Your task to perform on an android device: Add "duracell triple a" to the cart on amazon Image 0: 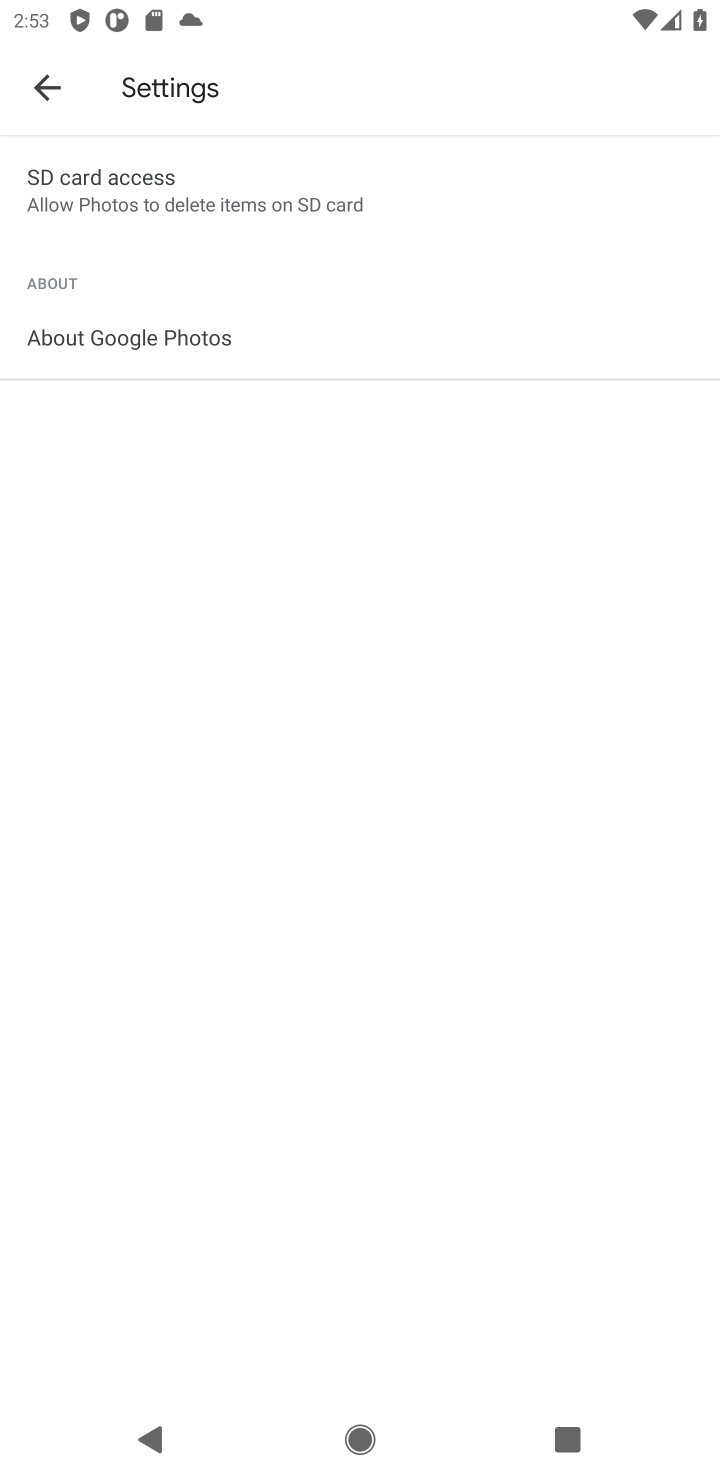
Step 0: press home button
Your task to perform on an android device: Add "duracell triple a" to the cart on amazon Image 1: 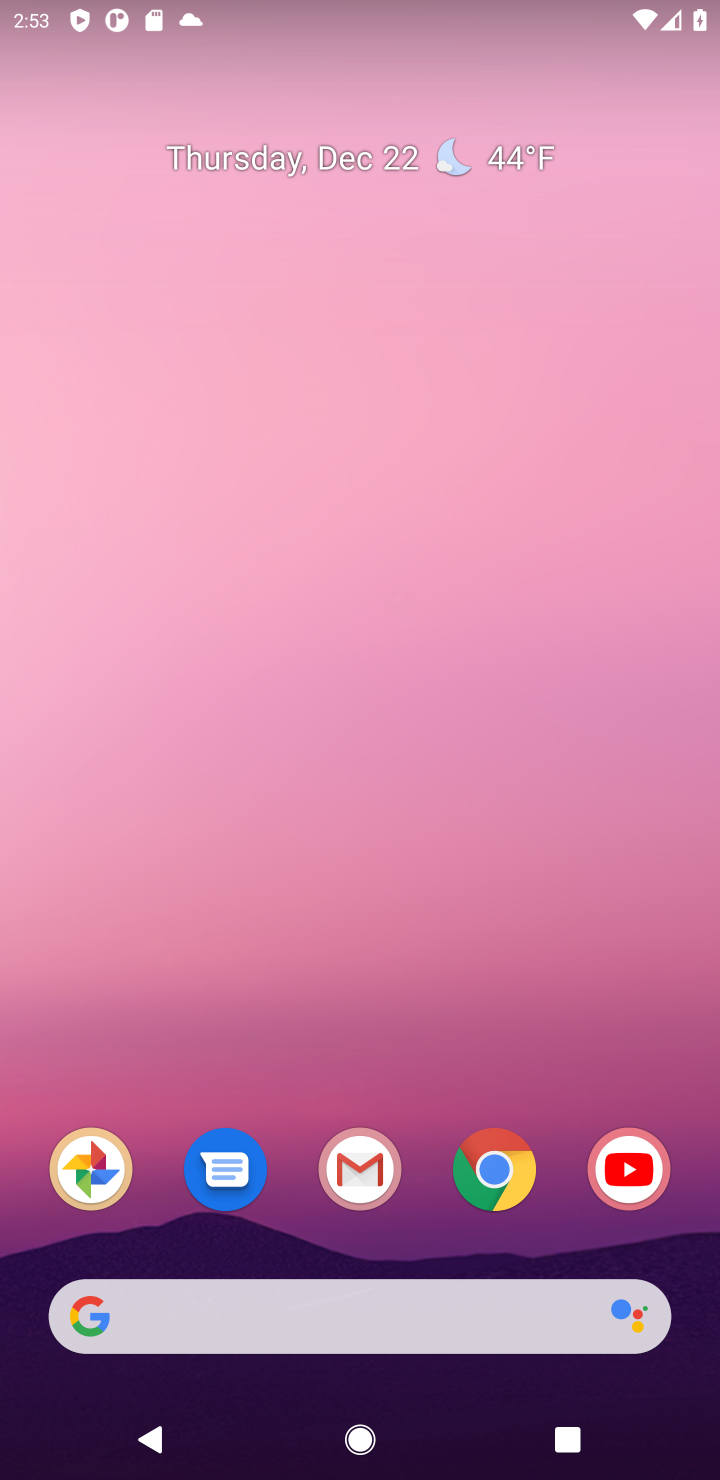
Step 1: click (493, 1178)
Your task to perform on an android device: Add "duracell triple a" to the cart on amazon Image 2: 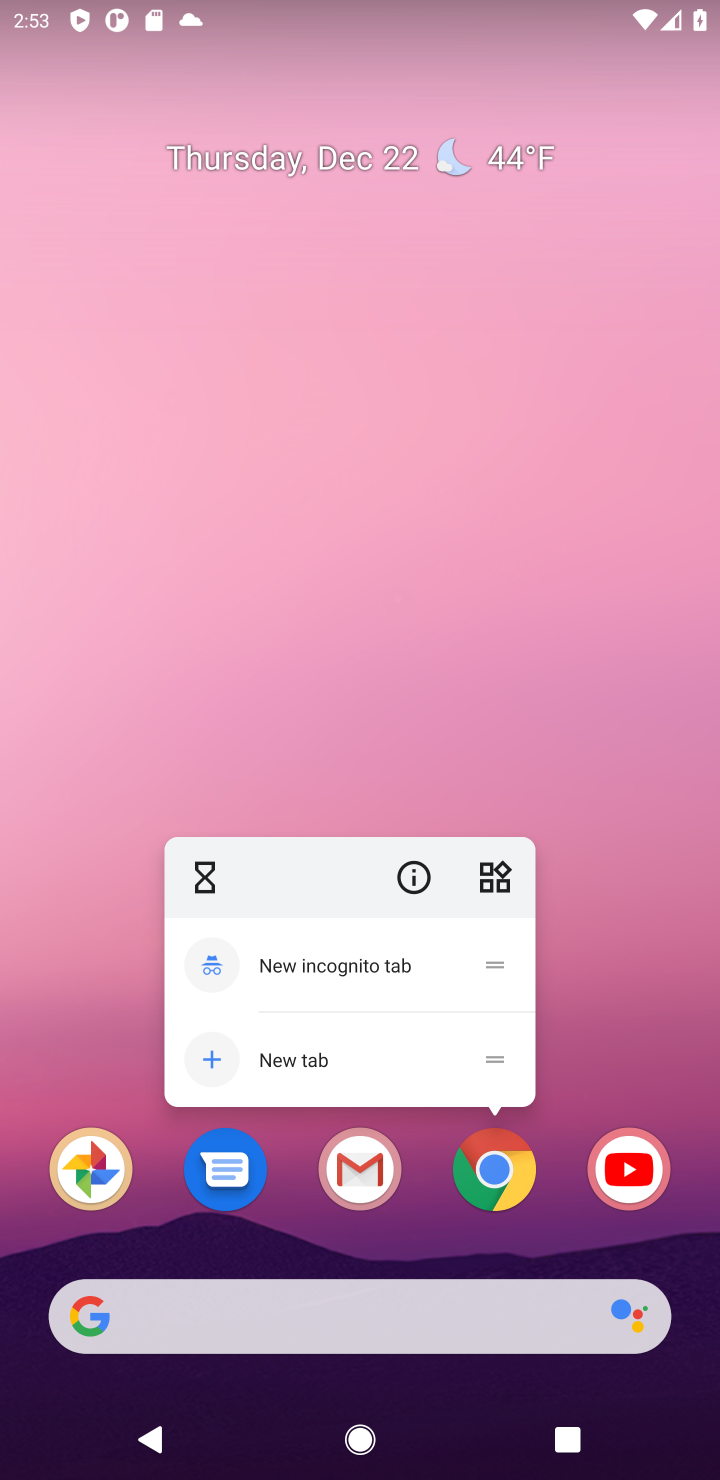
Step 2: click (493, 1178)
Your task to perform on an android device: Add "duracell triple a" to the cart on amazon Image 3: 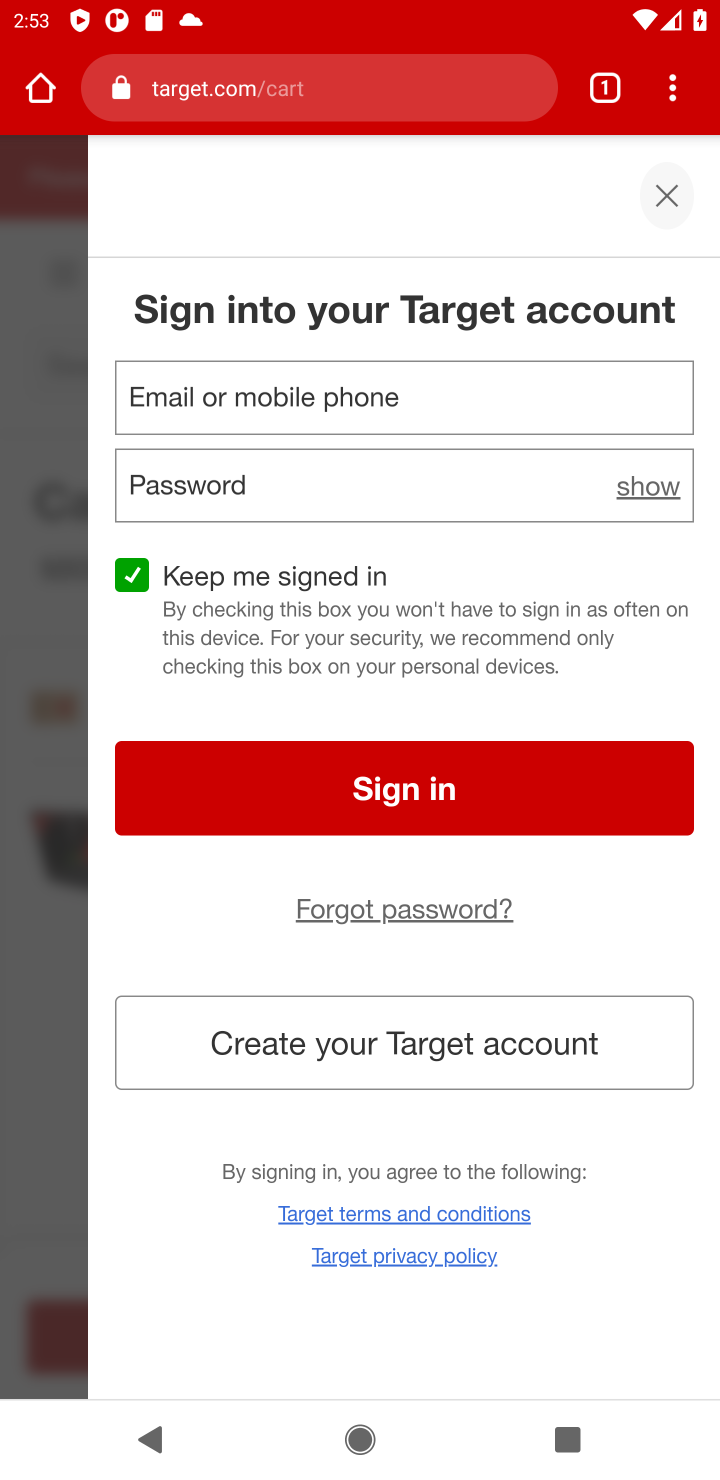
Step 3: click (249, 91)
Your task to perform on an android device: Add "duracell triple a" to the cart on amazon Image 4: 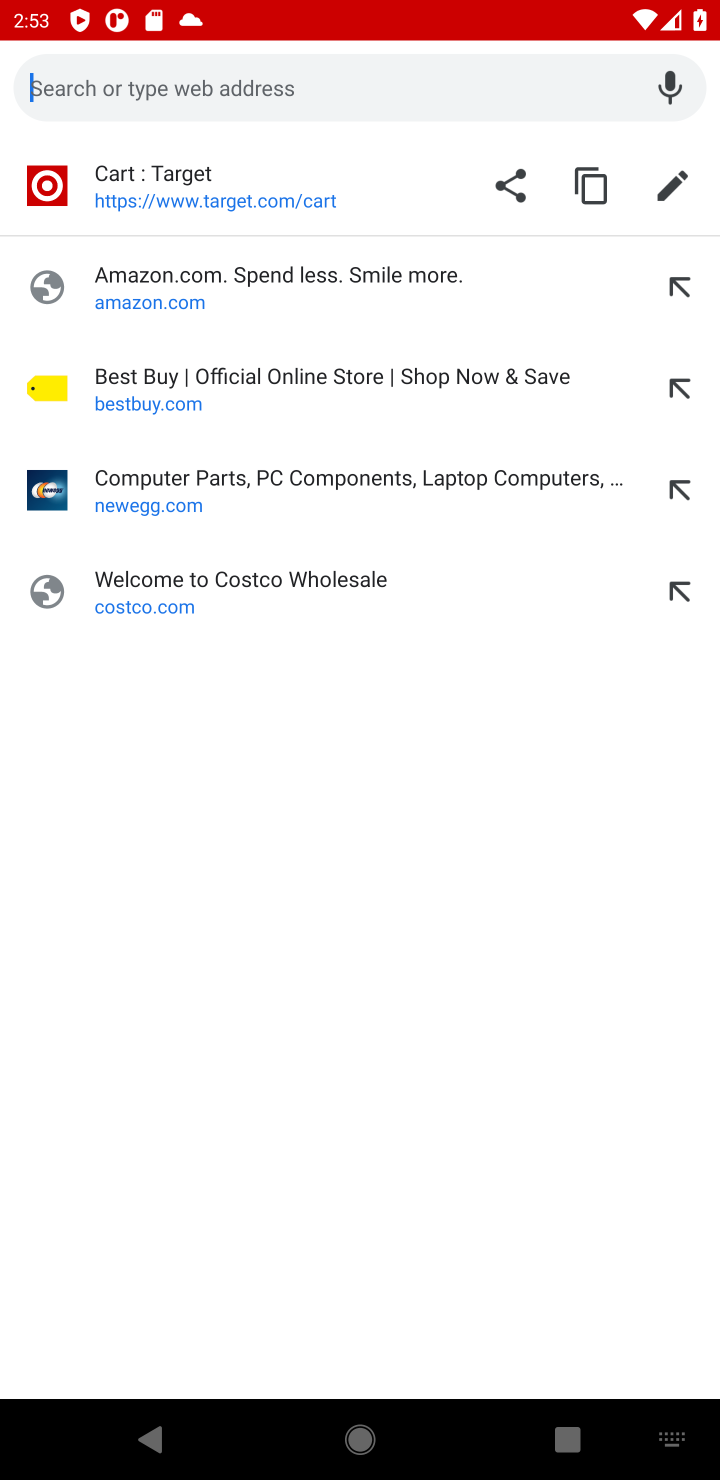
Step 4: click (145, 298)
Your task to perform on an android device: Add "duracell triple a" to the cart on amazon Image 5: 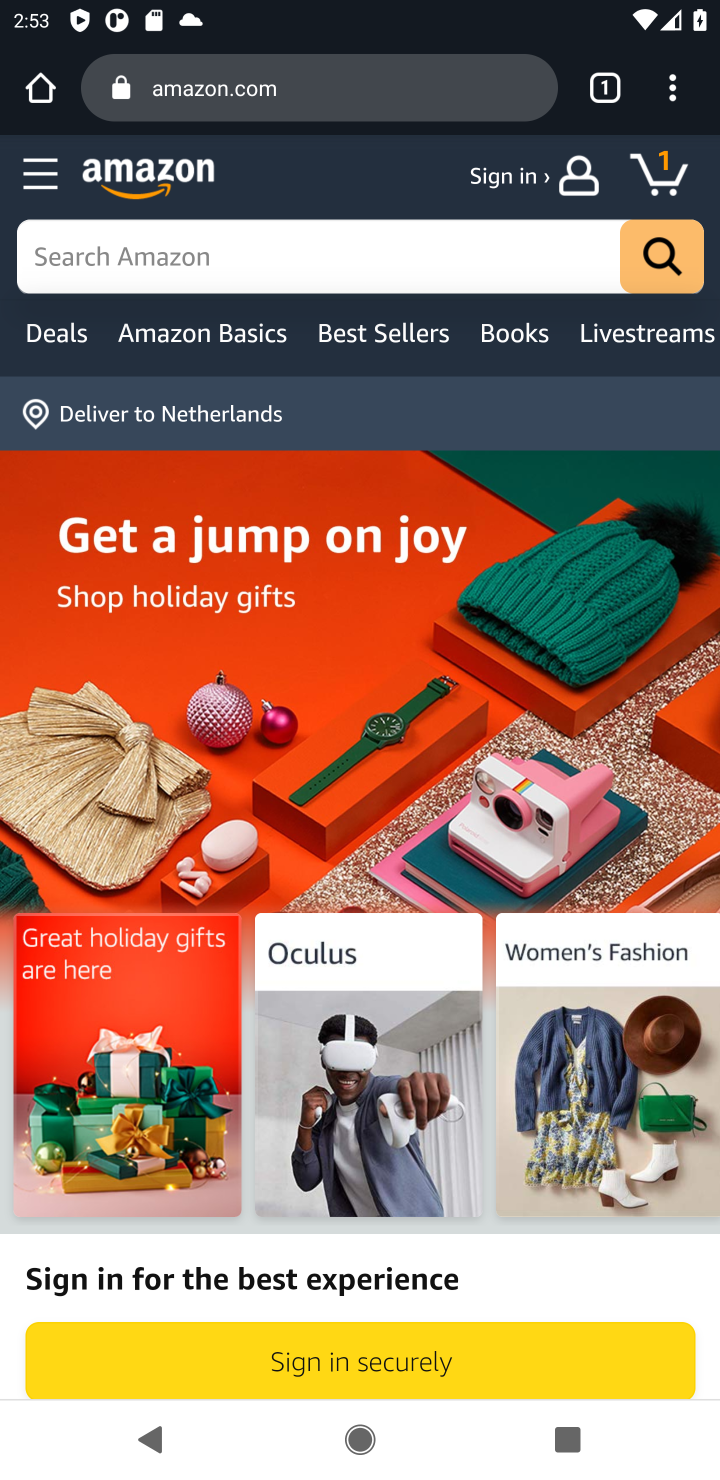
Step 5: click (183, 253)
Your task to perform on an android device: Add "duracell triple a" to the cart on amazon Image 6: 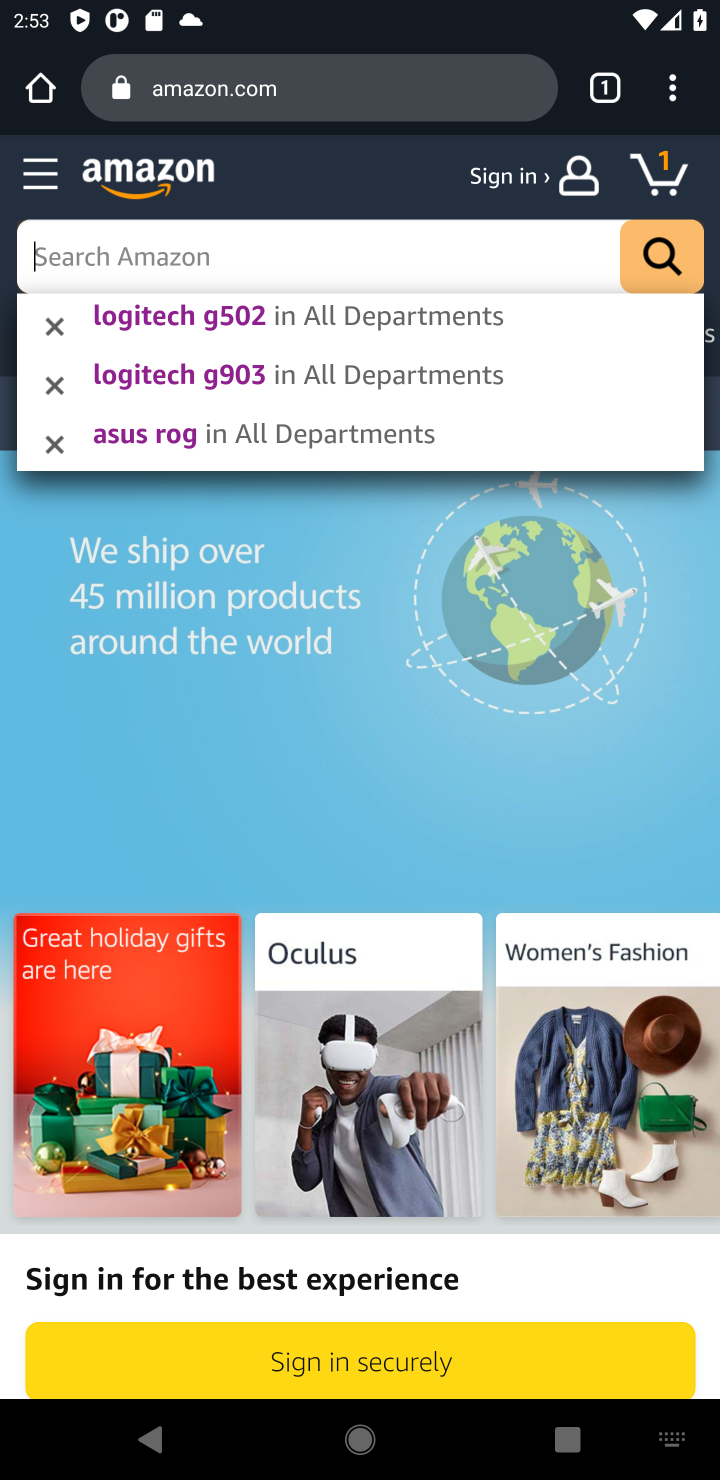
Step 6: type "duracell triple a"
Your task to perform on an android device: Add "duracell triple a" to the cart on amazon Image 7: 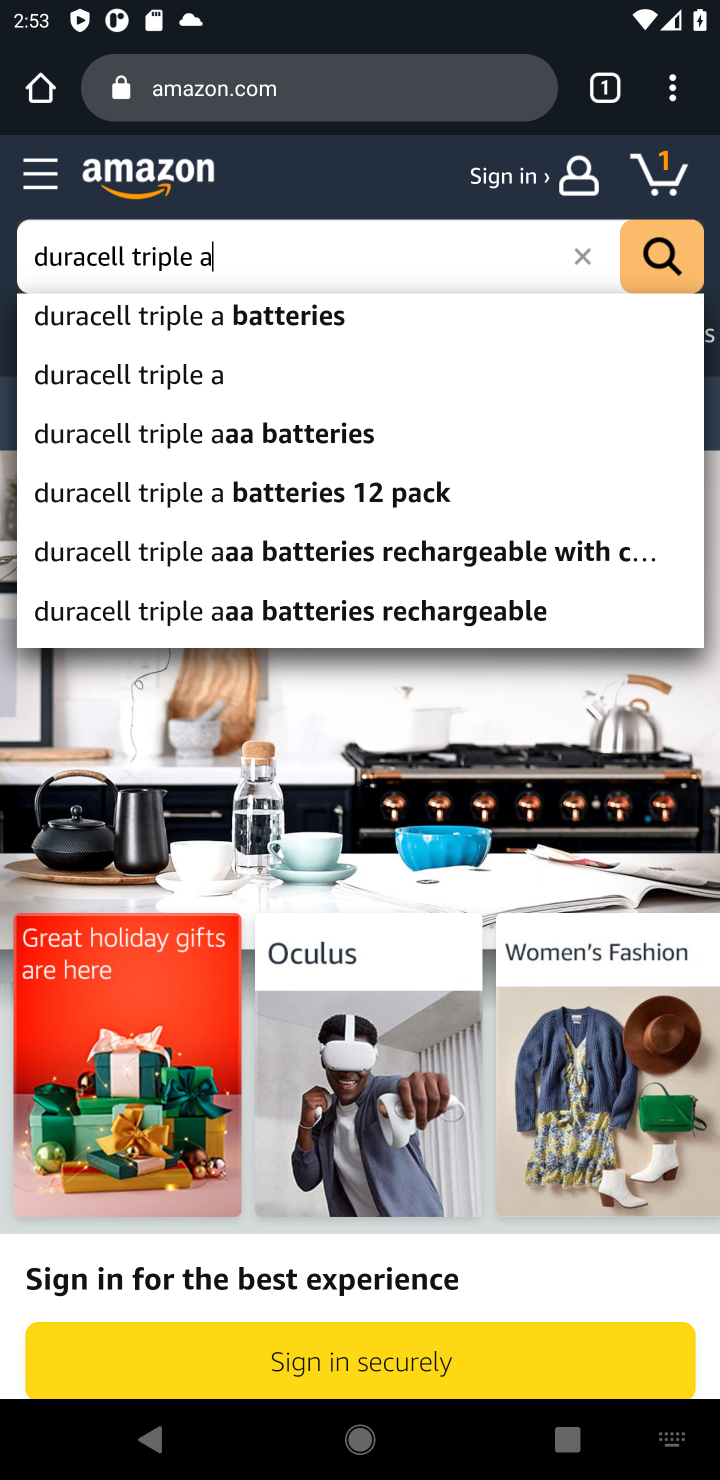
Step 7: click (198, 328)
Your task to perform on an android device: Add "duracell triple a" to the cart on amazon Image 8: 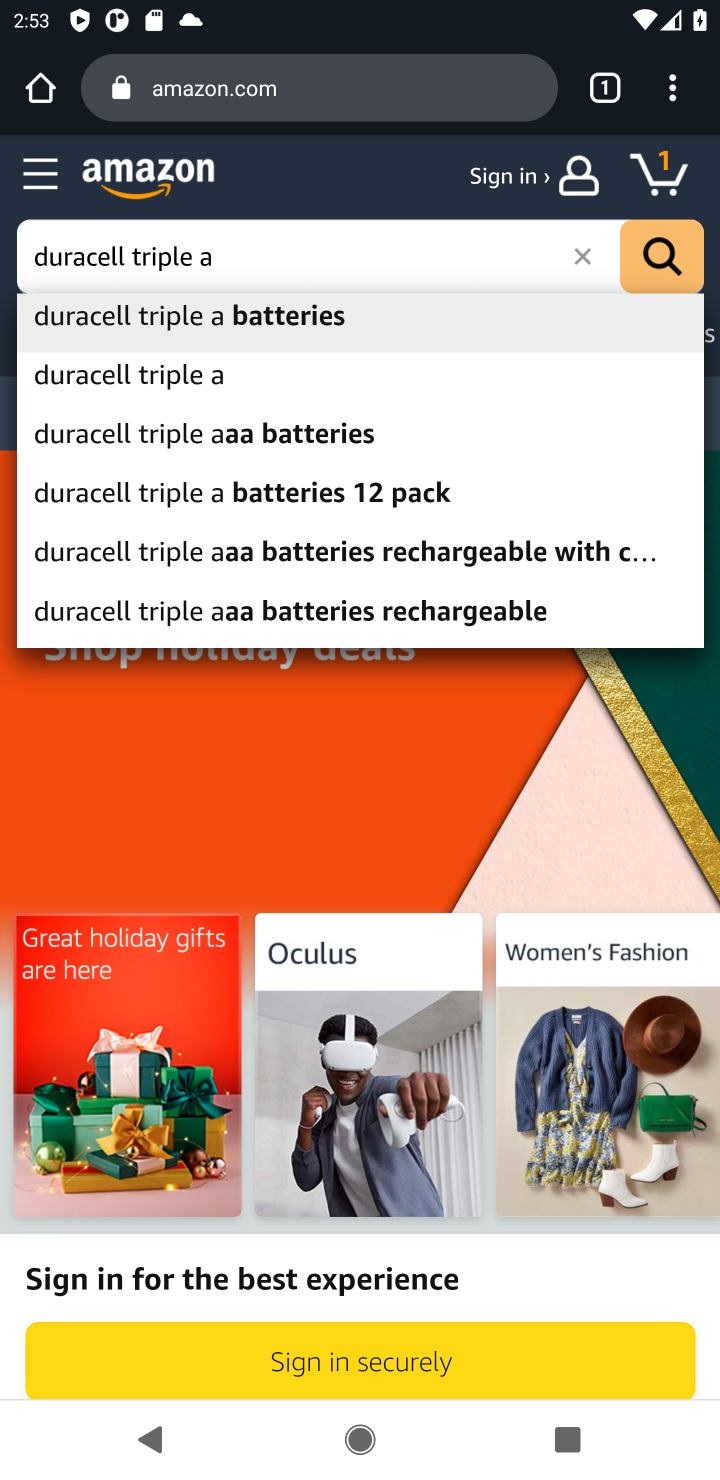
Step 8: click (175, 323)
Your task to perform on an android device: Add "duracell triple a" to the cart on amazon Image 9: 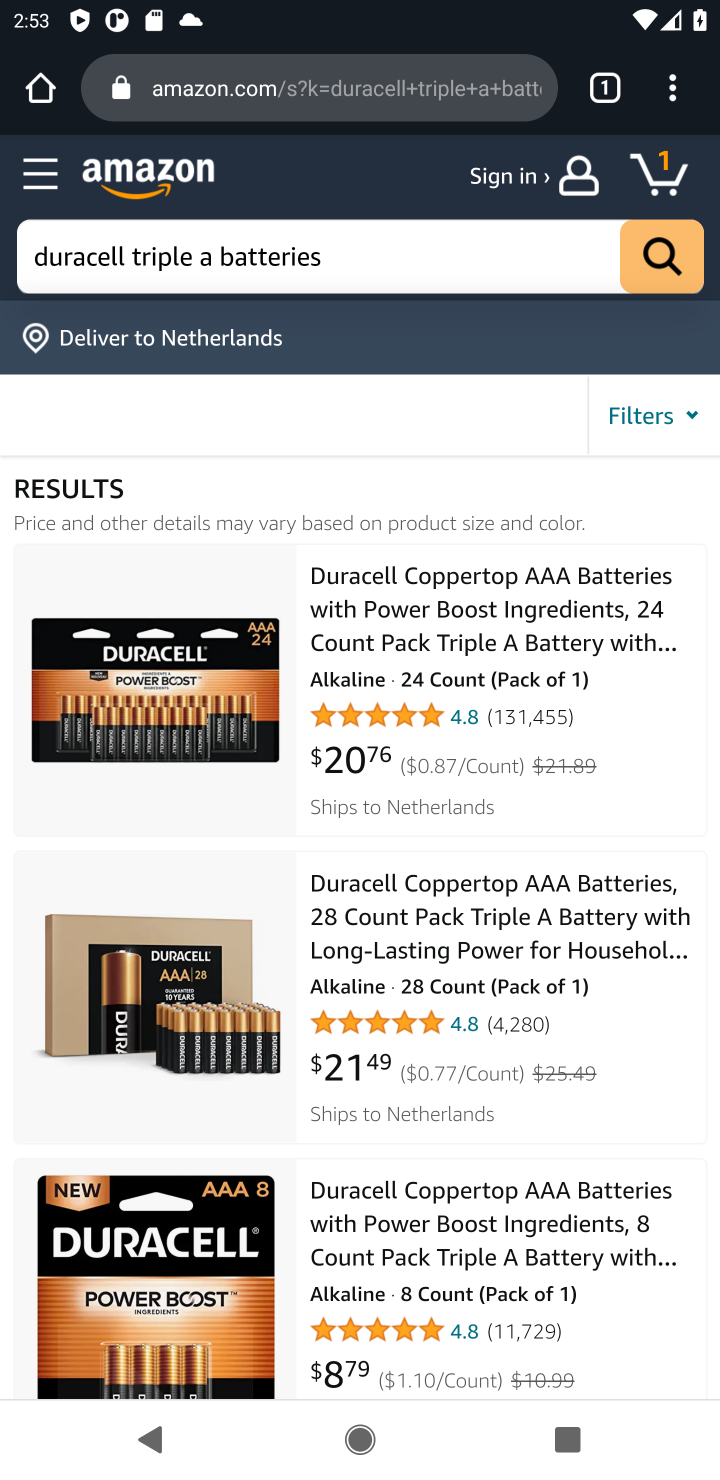
Step 9: click (455, 637)
Your task to perform on an android device: Add "duracell triple a" to the cart on amazon Image 10: 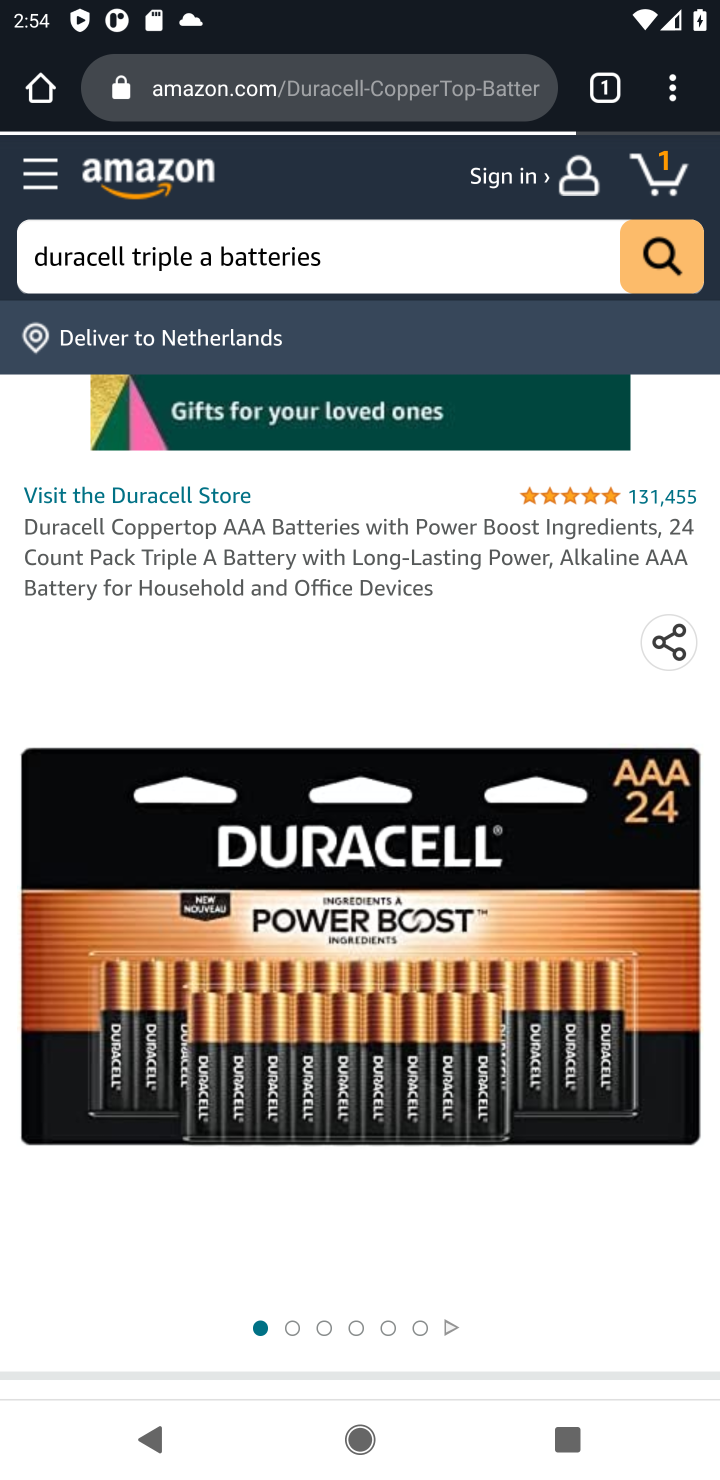
Step 10: drag from (356, 1015) to (376, 467)
Your task to perform on an android device: Add "duracell triple a" to the cart on amazon Image 11: 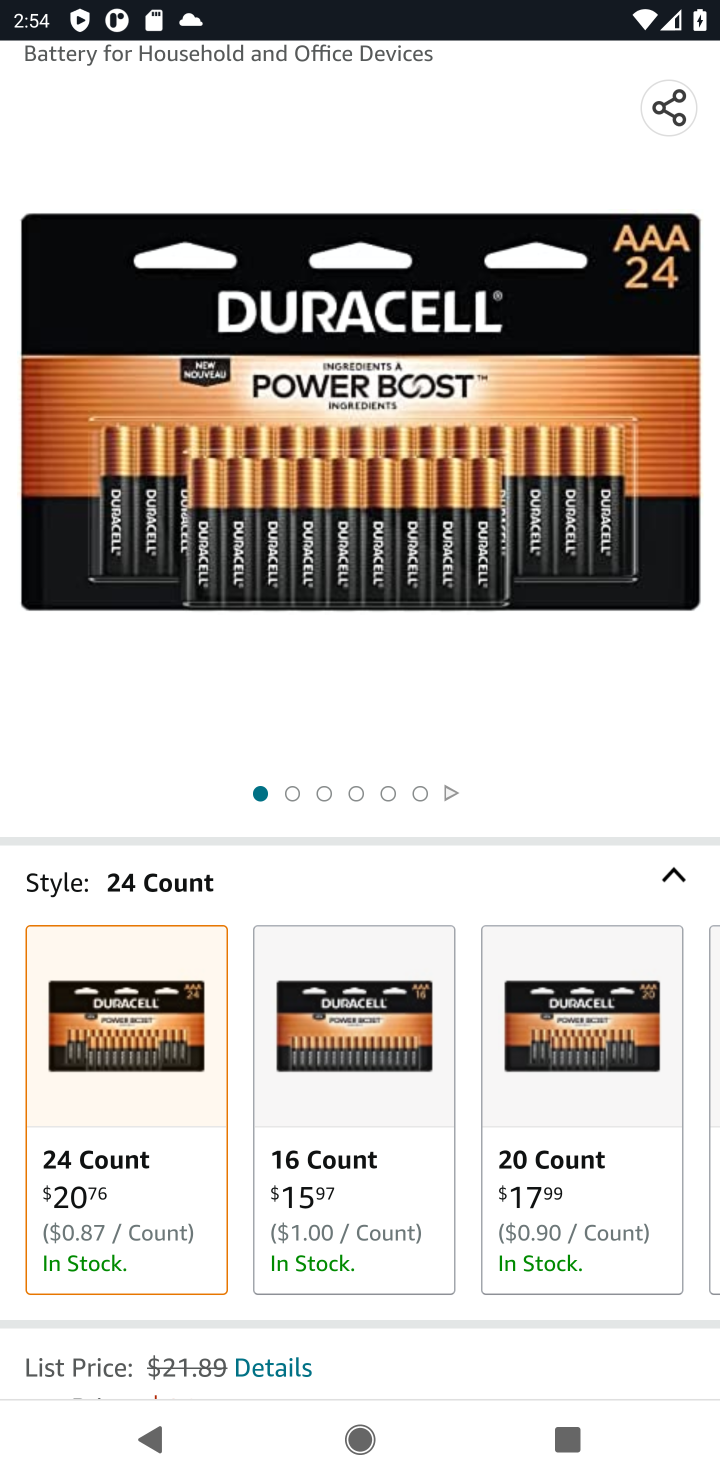
Step 11: drag from (338, 1145) to (376, 526)
Your task to perform on an android device: Add "duracell triple a" to the cart on amazon Image 12: 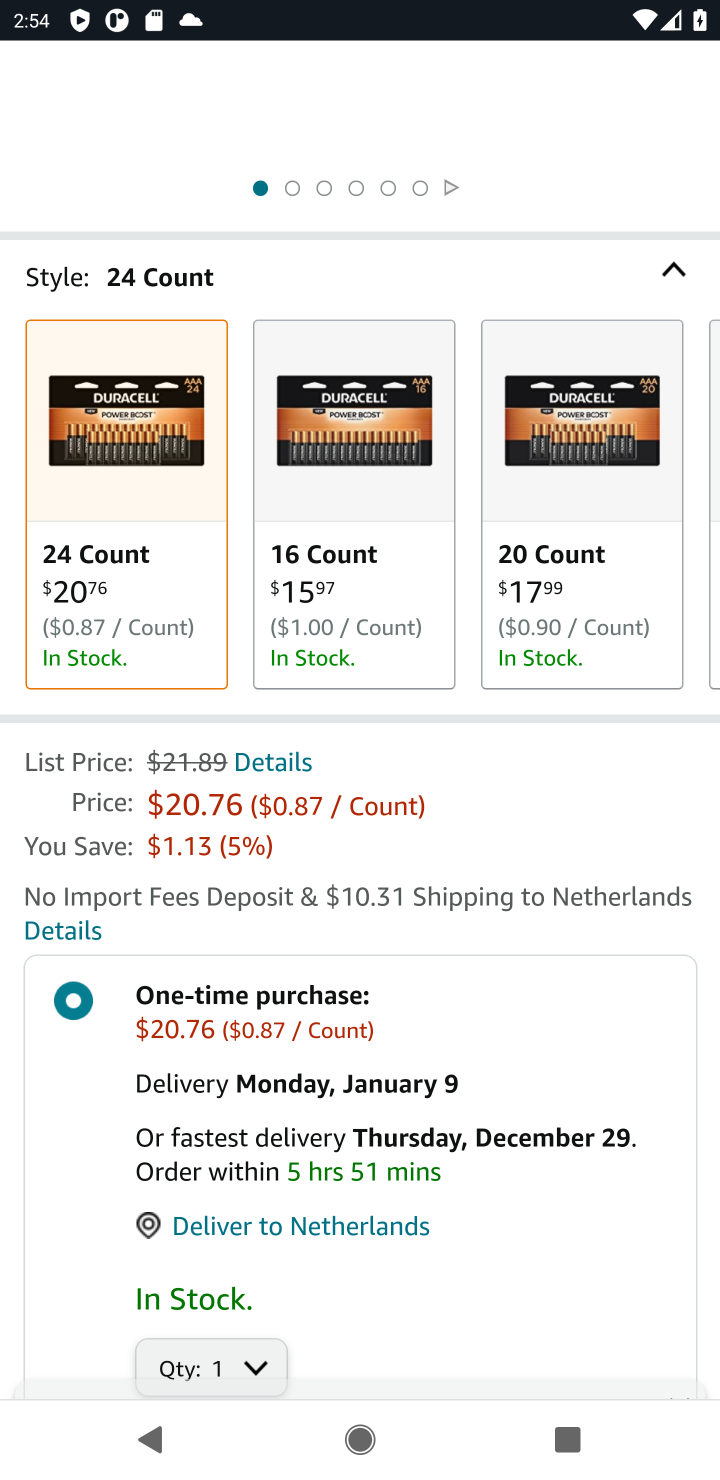
Step 12: drag from (343, 1025) to (379, 517)
Your task to perform on an android device: Add "duracell triple a" to the cart on amazon Image 13: 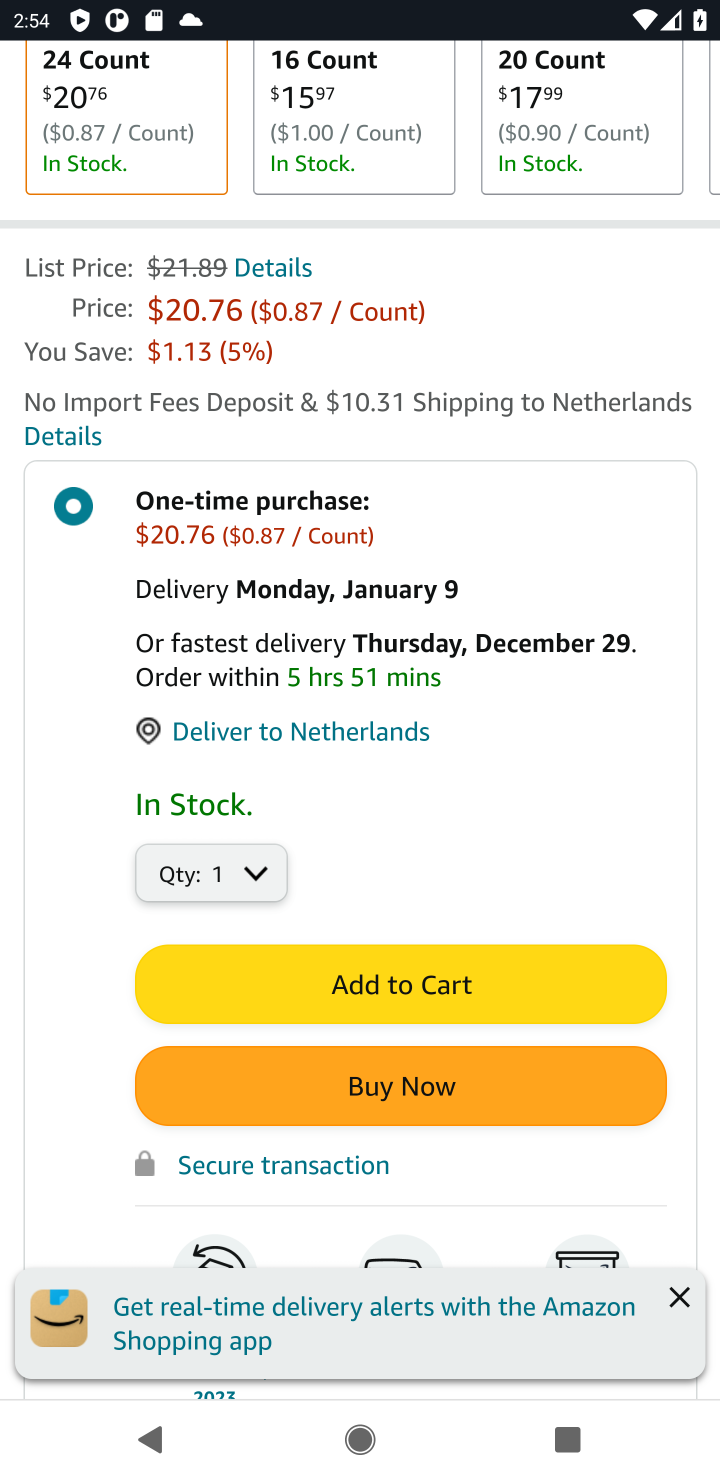
Step 13: click (364, 983)
Your task to perform on an android device: Add "duracell triple a" to the cart on amazon Image 14: 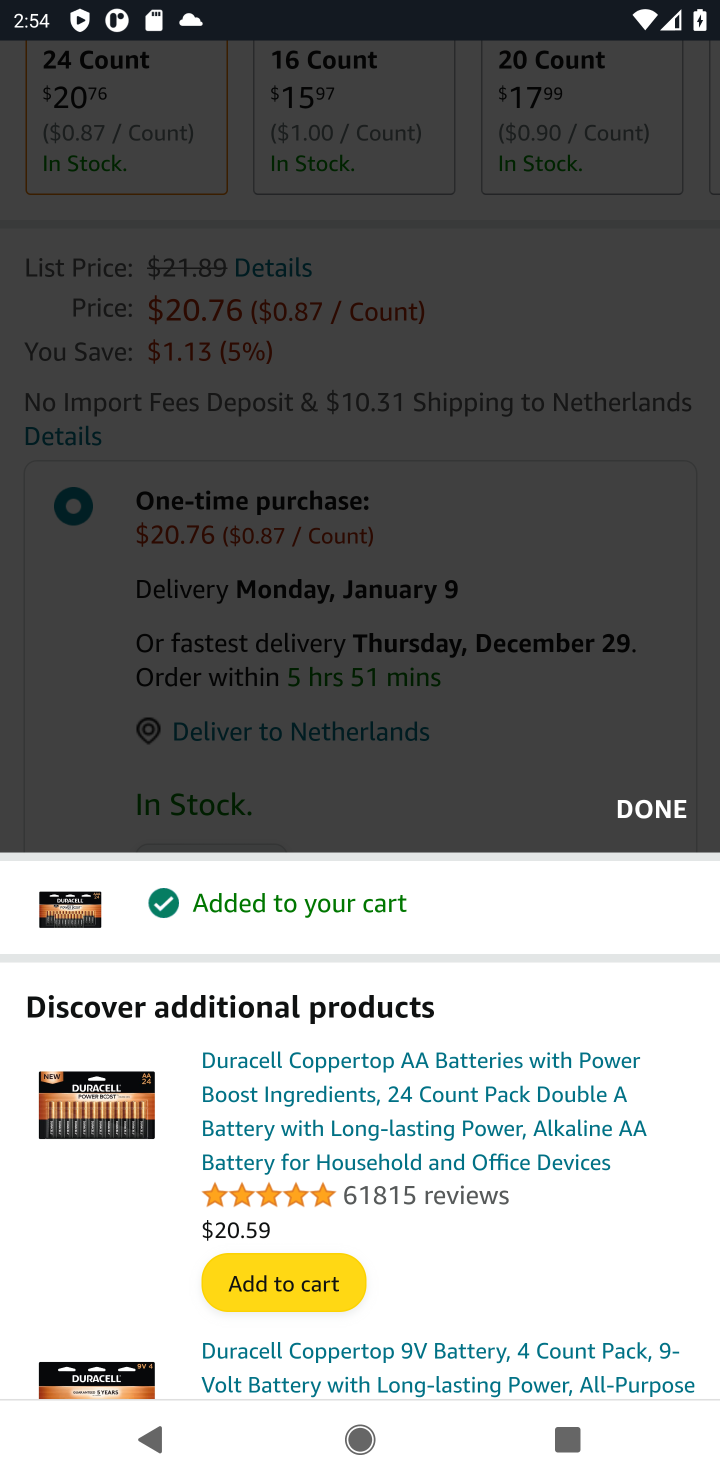
Step 14: click (631, 806)
Your task to perform on an android device: Add "duracell triple a" to the cart on amazon Image 15: 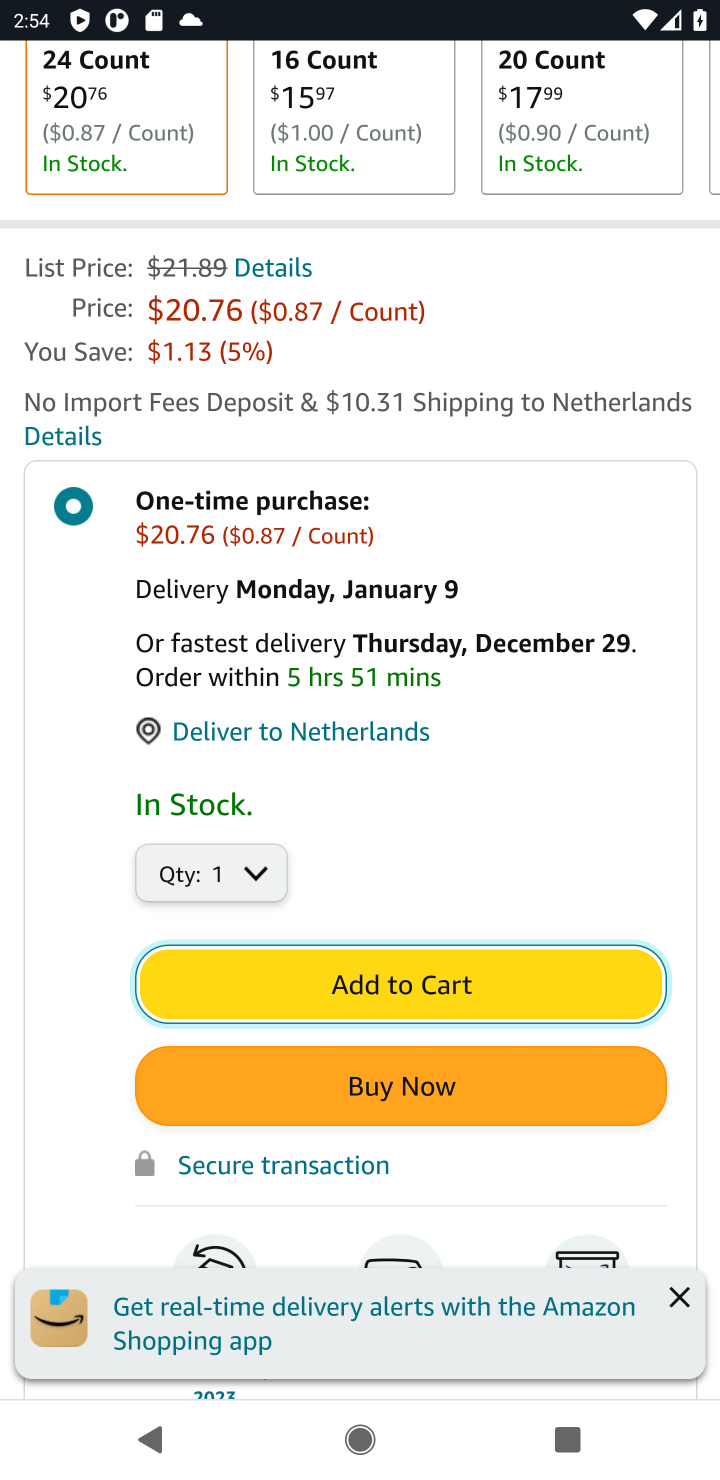
Step 15: drag from (411, 398) to (442, 1169)
Your task to perform on an android device: Add "duracell triple a" to the cart on amazon Image 16: 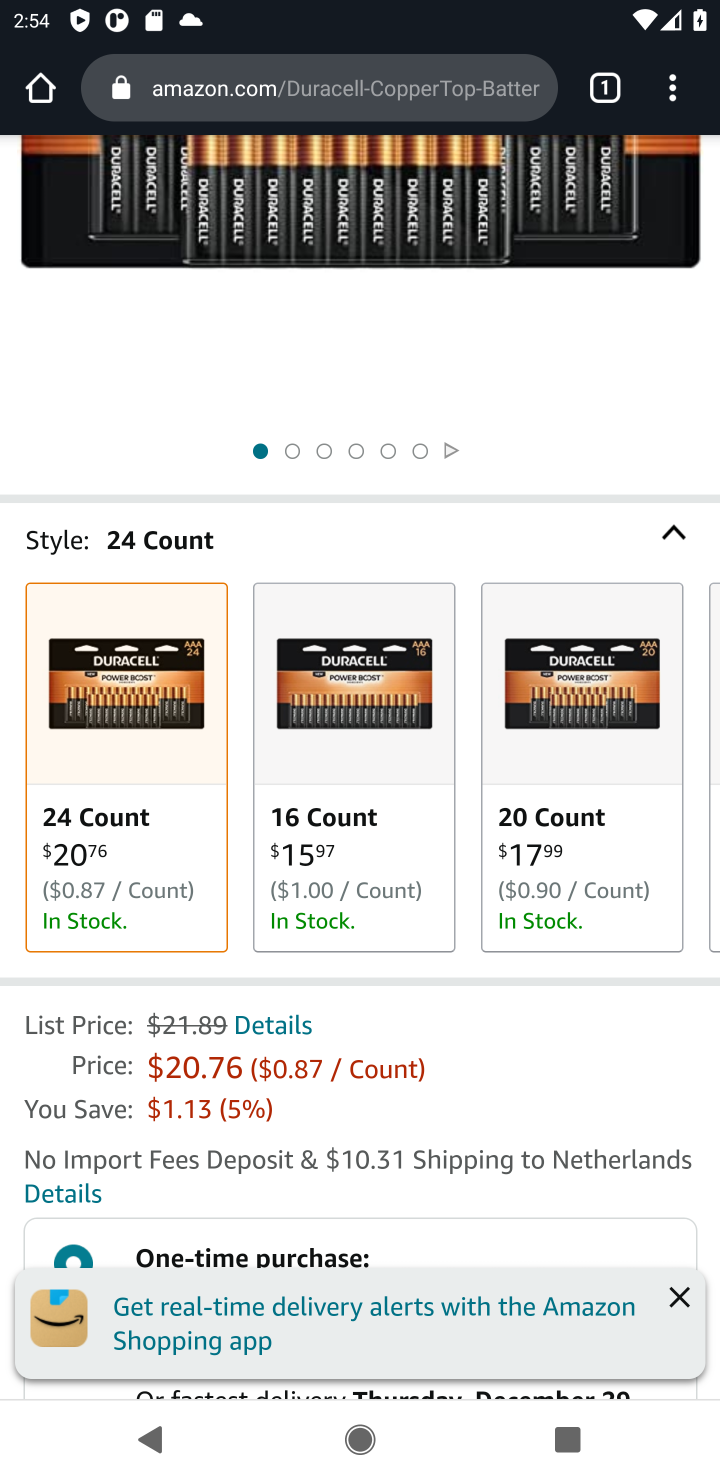
Step 16: drag from (463, 674) to (445, 1165)
Your task to perform on an android device: Add "duracell triple a" to the cart on amazon Image 17: 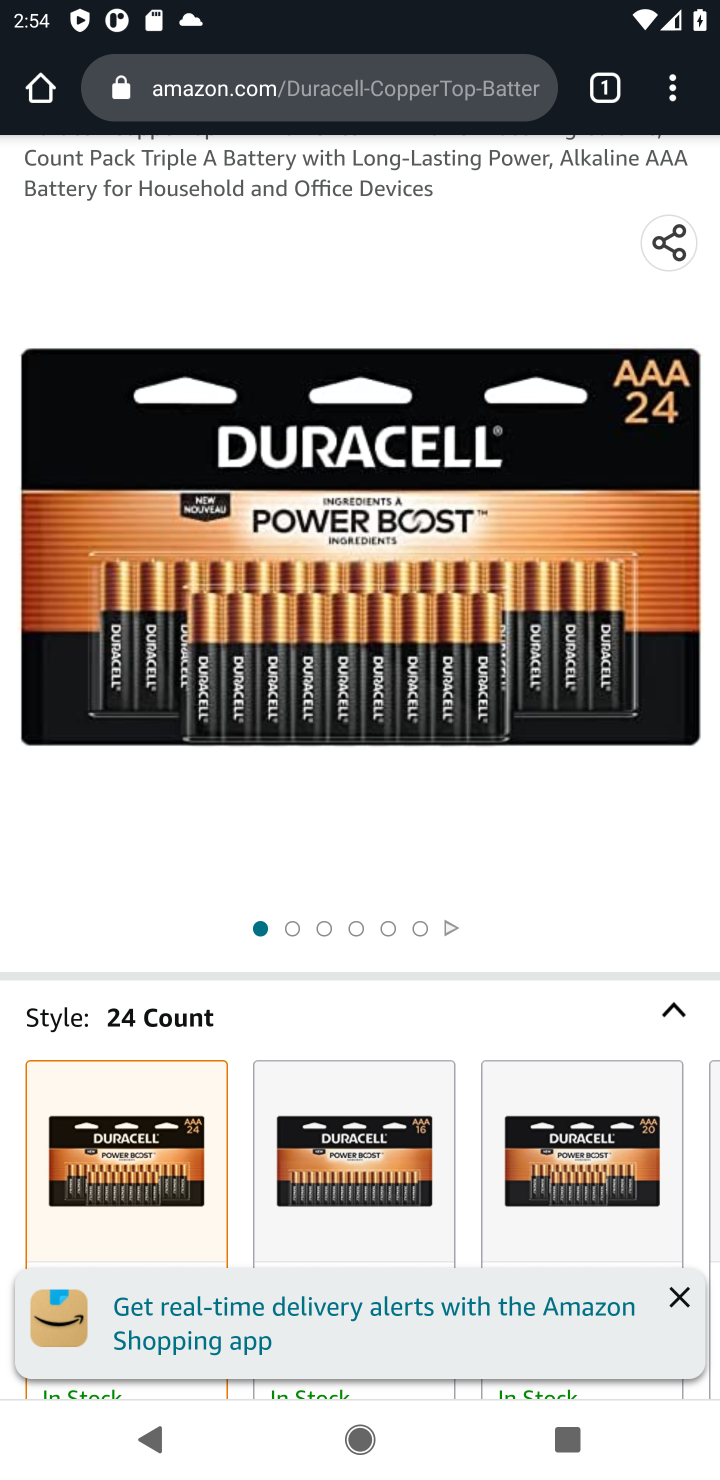
Step 17: drag from (438, 365) to (425, 1041)
Your task to perform on an android device: Add "duracell triple a" to the cart on amazon Image 18: 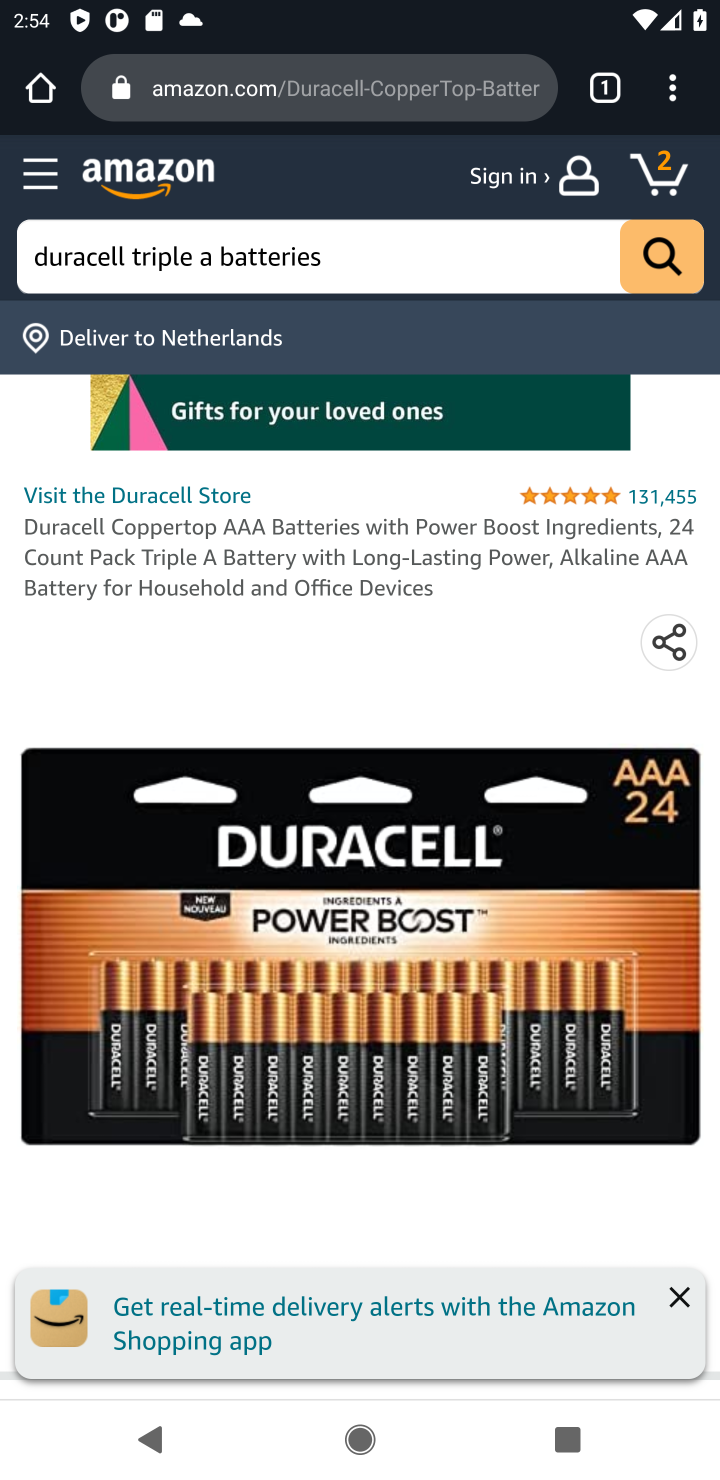
Step 18: click (654, 182)
Your task to perform on an android device: Add "duracell triple a" to the cart on amazon Image 19: 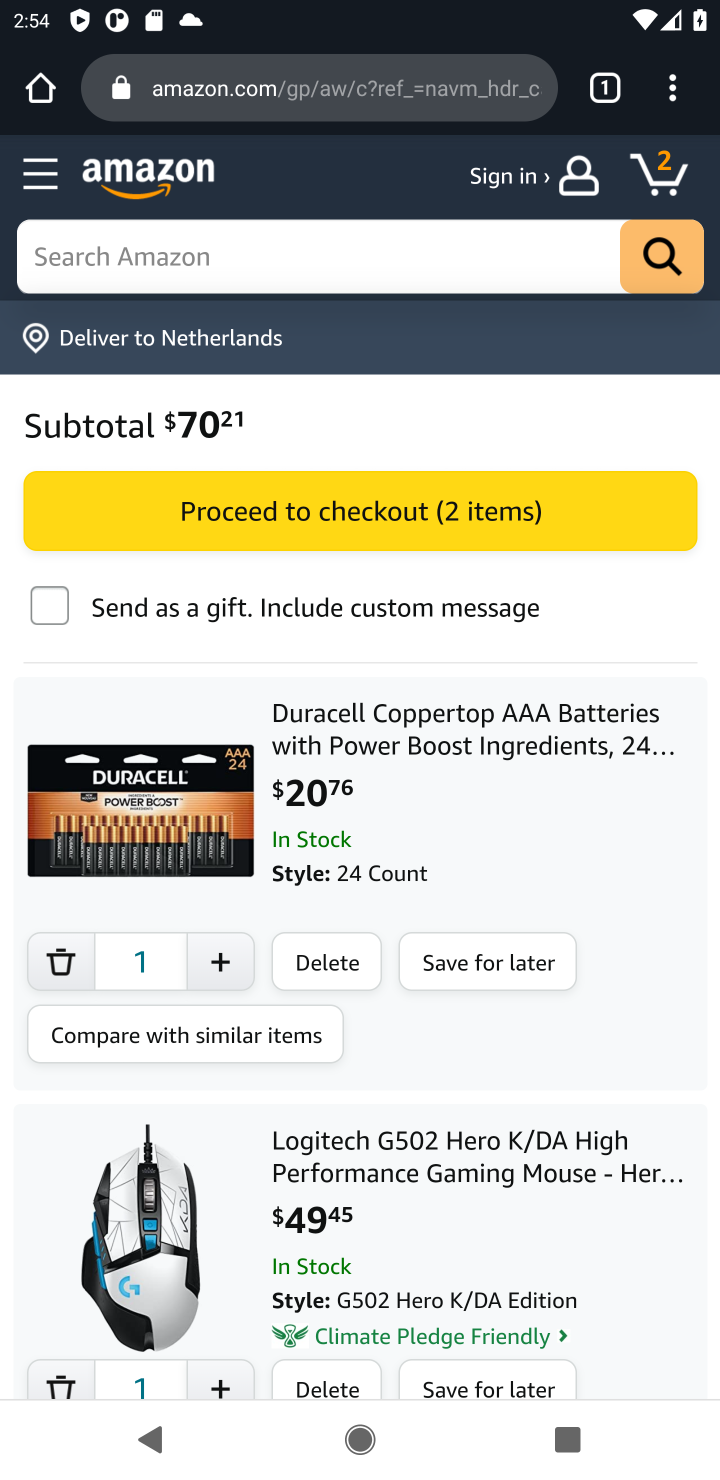
Step 19: task complete